Your task to perform on an android device: turn off picture-in-picture Image 0: 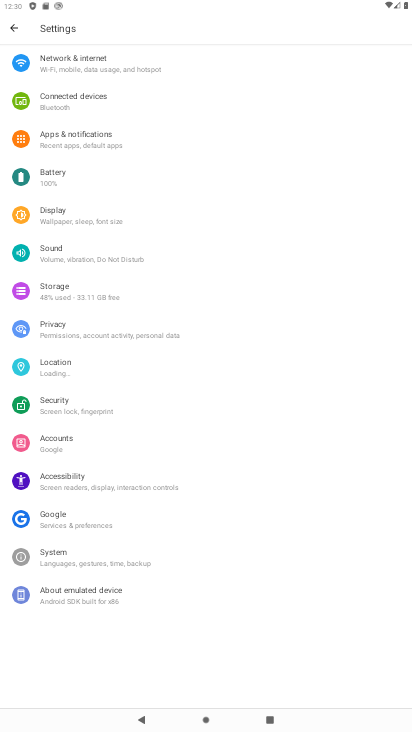
Step 0: press home button
Your task to perform on an android device: turn off picture-in-picture Image 1: 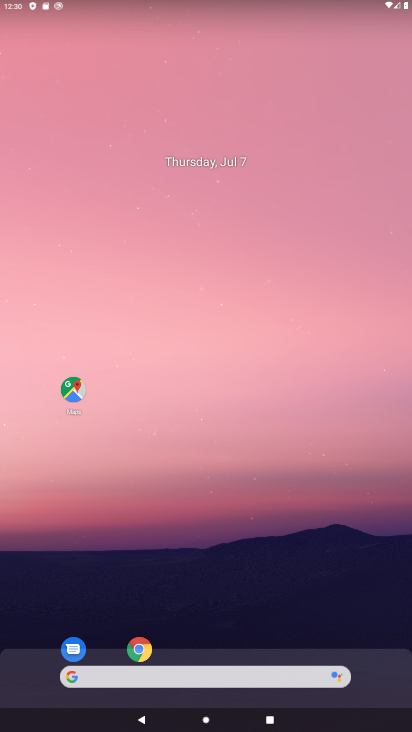
Step 1: drag from (213, 668) to (269, 76)
Your task to perform on an android device: turn off picture-in-picture Image 2: 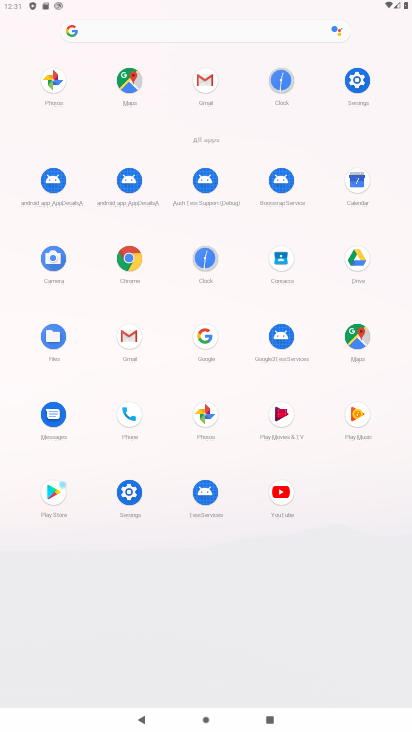
Step 2: click (119, 488)
Your task to perform on an android device: turn off picture-in-picture Image 3: 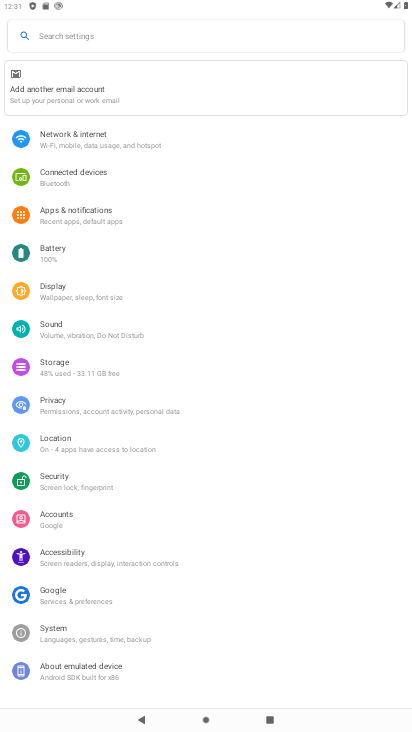
Step 3: click (97, 216)
Your task to perform on an android device: turn off picture-in-picture Image 4: 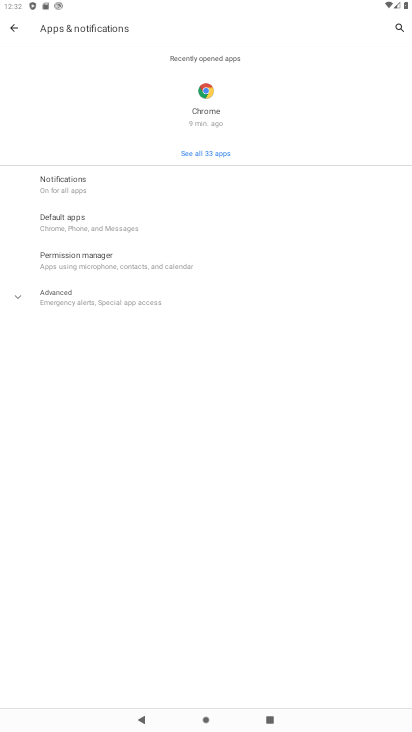
Step 4: click (57, 179)
Your task to perform on an android device: turn off picture-in-picture Image 5: 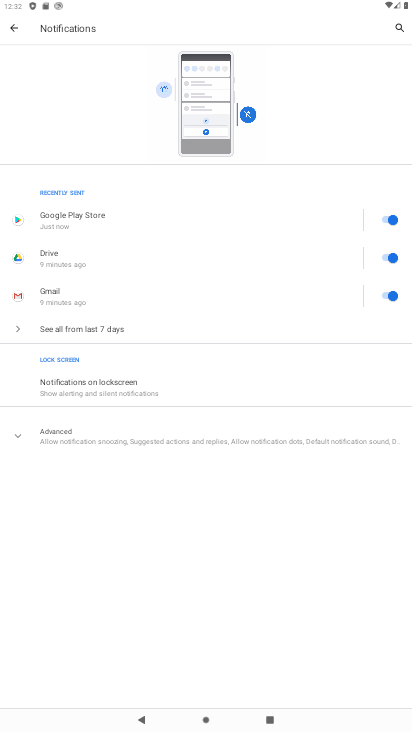
Step 5: task complete